Your task to perform on an android device: install app "Paramount+ | Peak Streaming" Image 0: 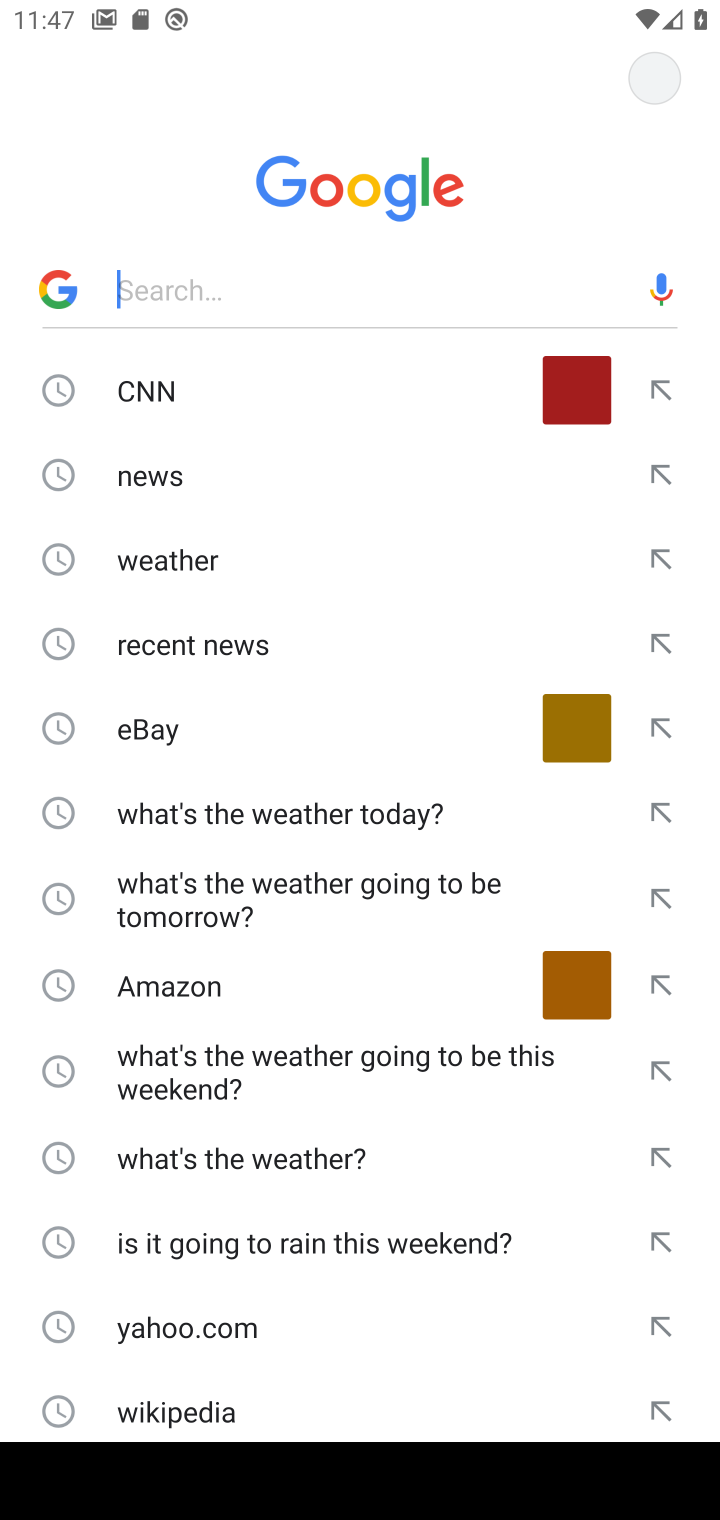
Step 0: click (592, 77)
Your task to perform on an android device: install app "Paramount+ | Peak Streaming" Image 1: 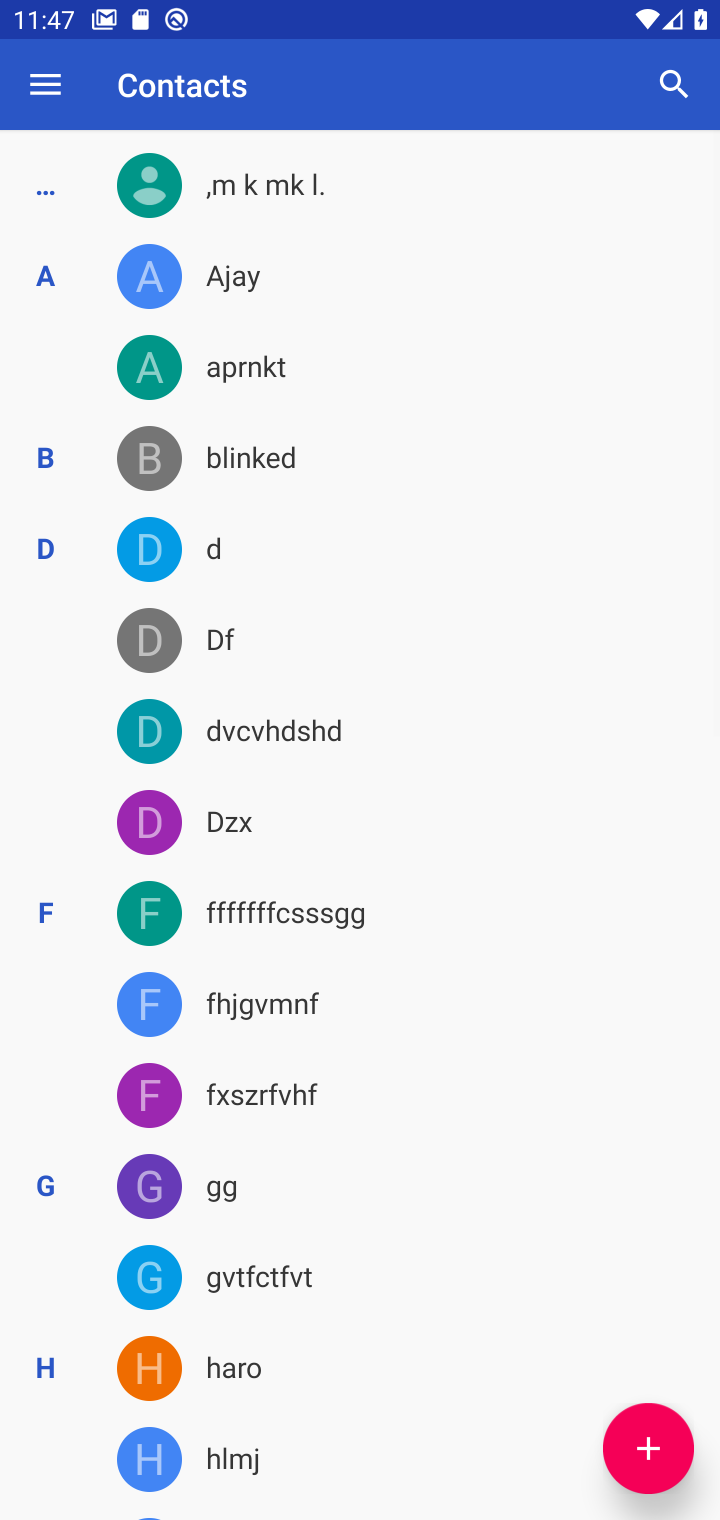
Step 1: press back button
Your task to perform on an android device: install app "Paramount+ | Peak Streaming" Image 2: 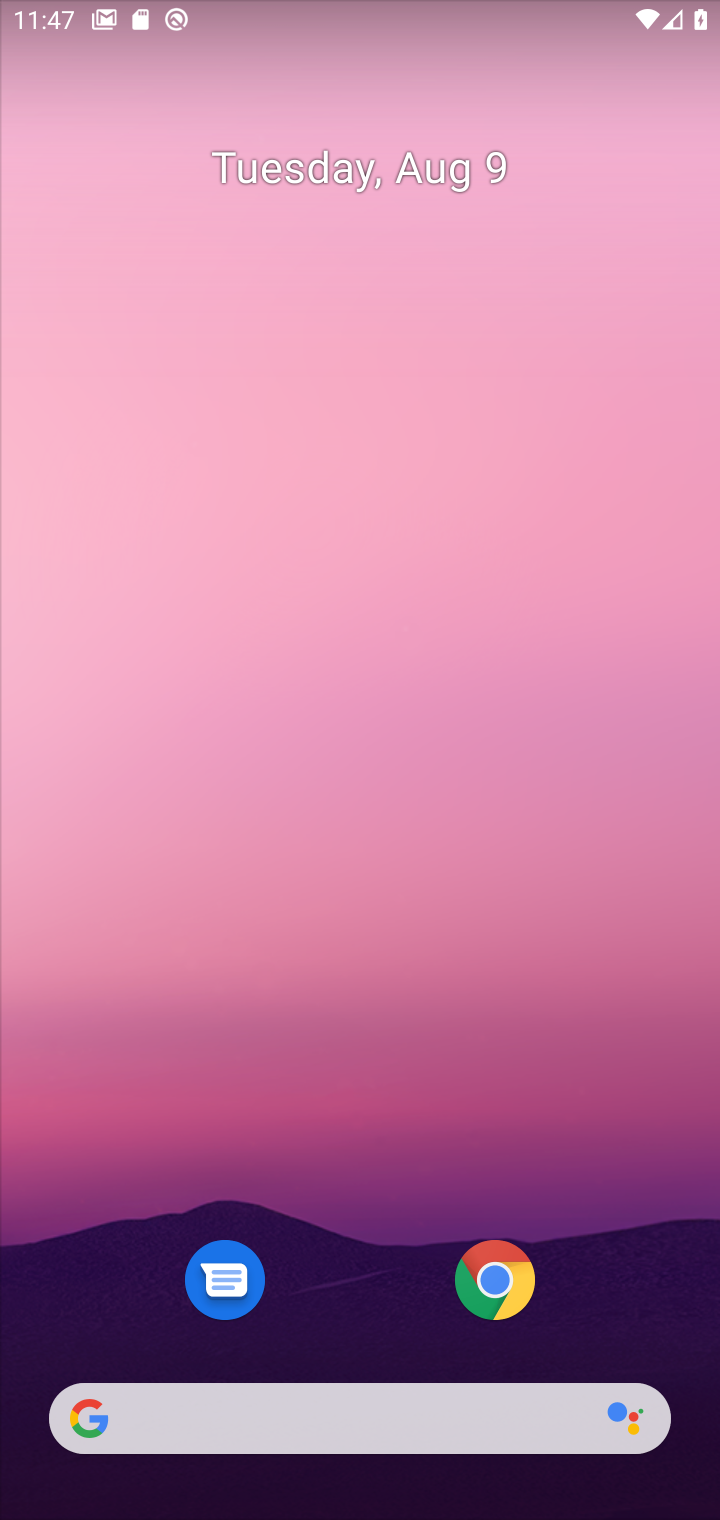
Step 2: drag from (350, 1300) to (626, 237)
Your task to perform on an android device: install app "Paramount+ | Peak Streaming" Image 3: 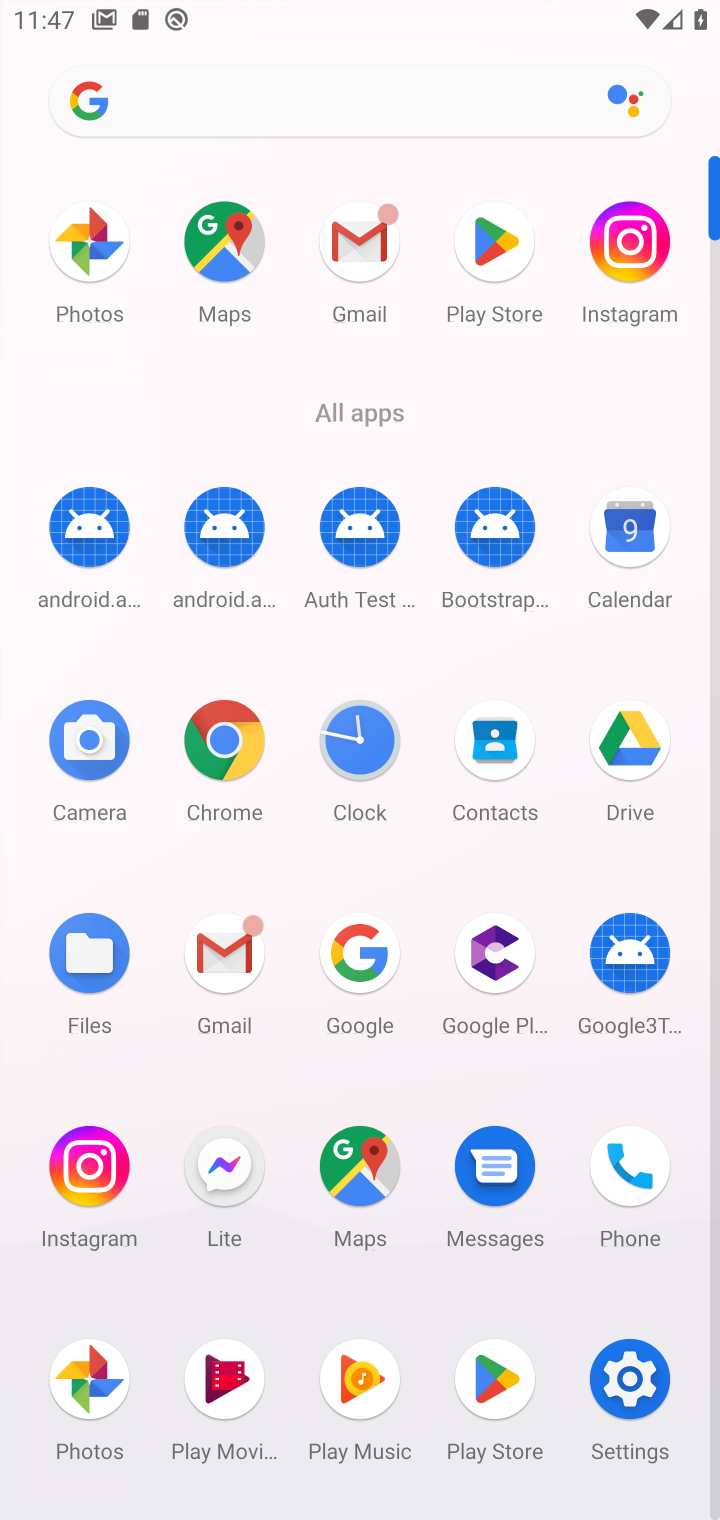
Step 3: click (501, 230)
Your task to perform on an android device: install app "Paramount+ | Peak Streaming" Image 4: 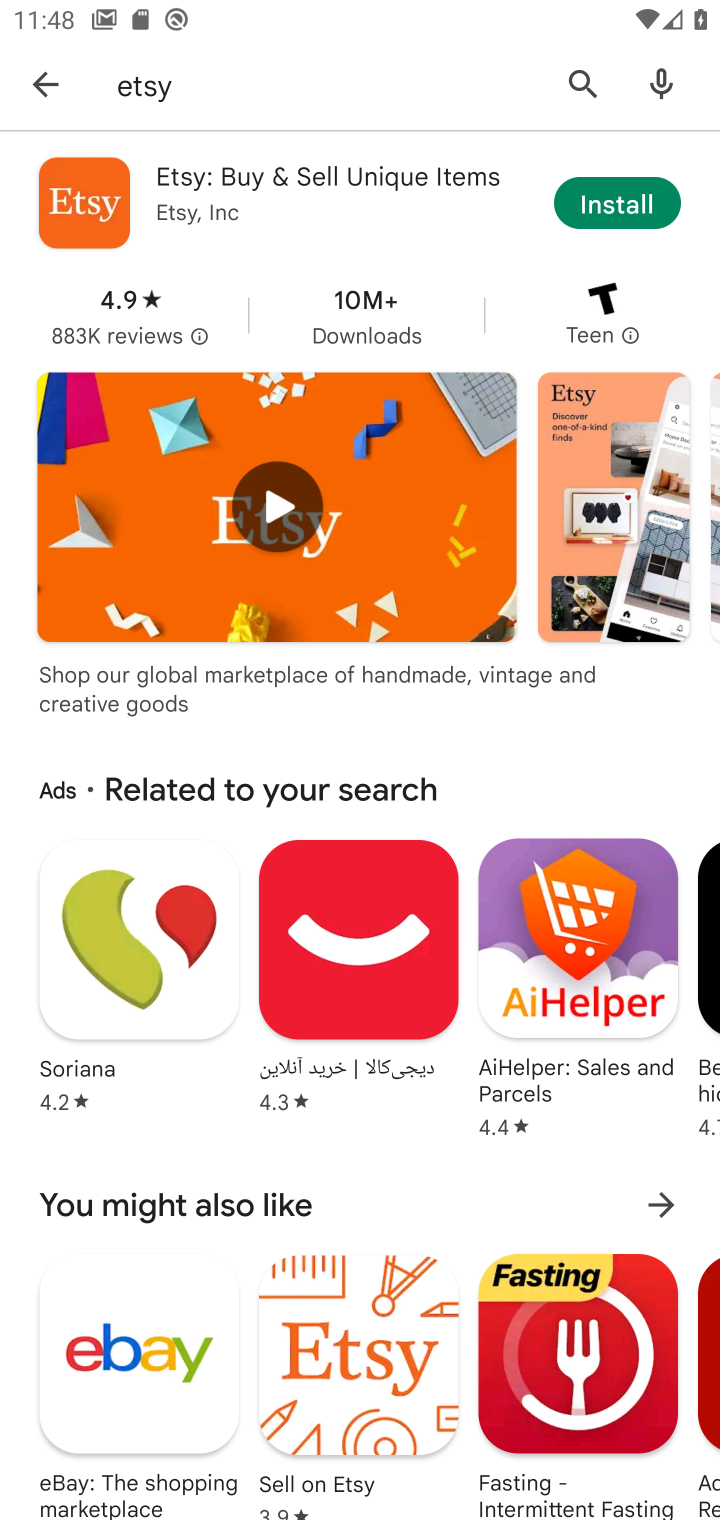
Step 4: click (577, 70)
Your task to perform on an android device: install app "Paramount+ | Peak Streaming" Image 5: 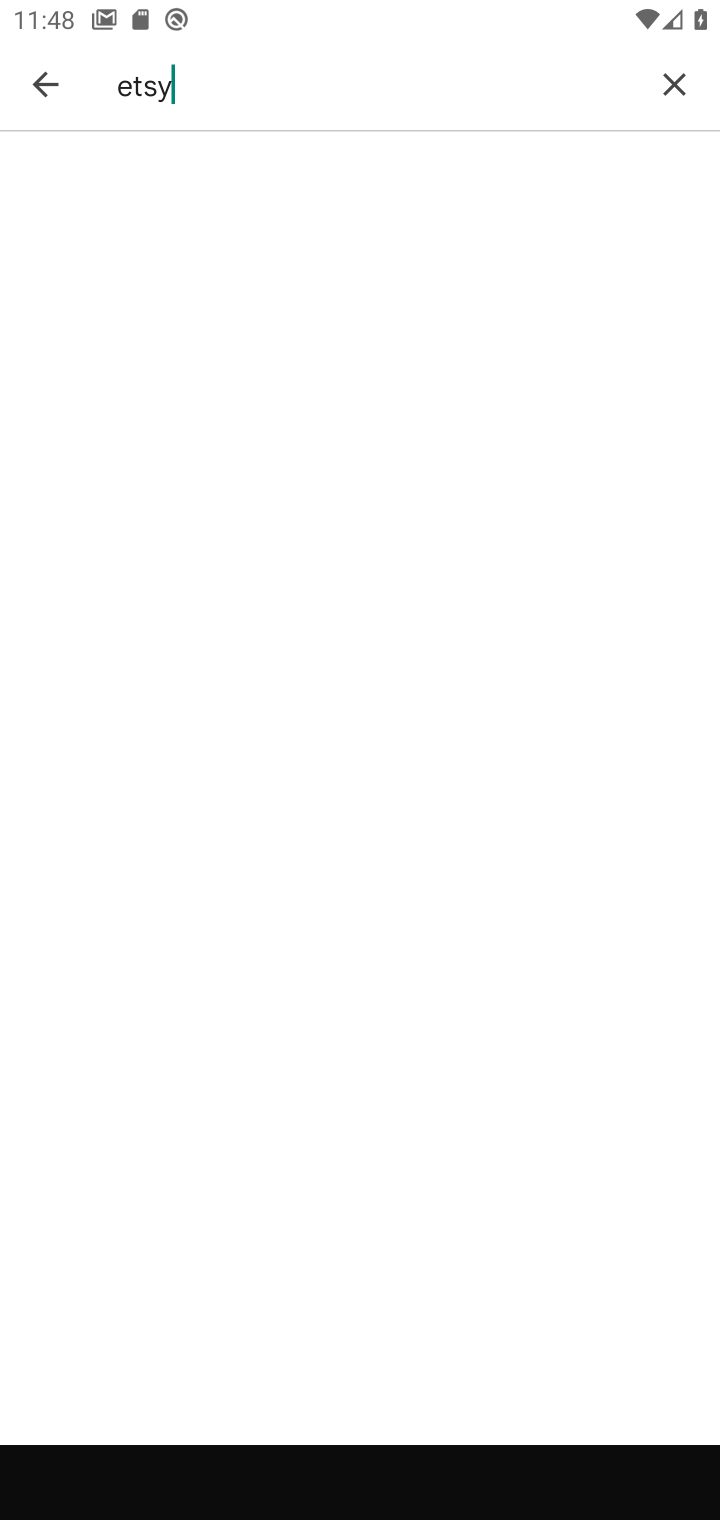
Step 5: click (675, 74)
Your task to perform on an android device: install app "Paramount+ | Peak Streaming" Image 6: 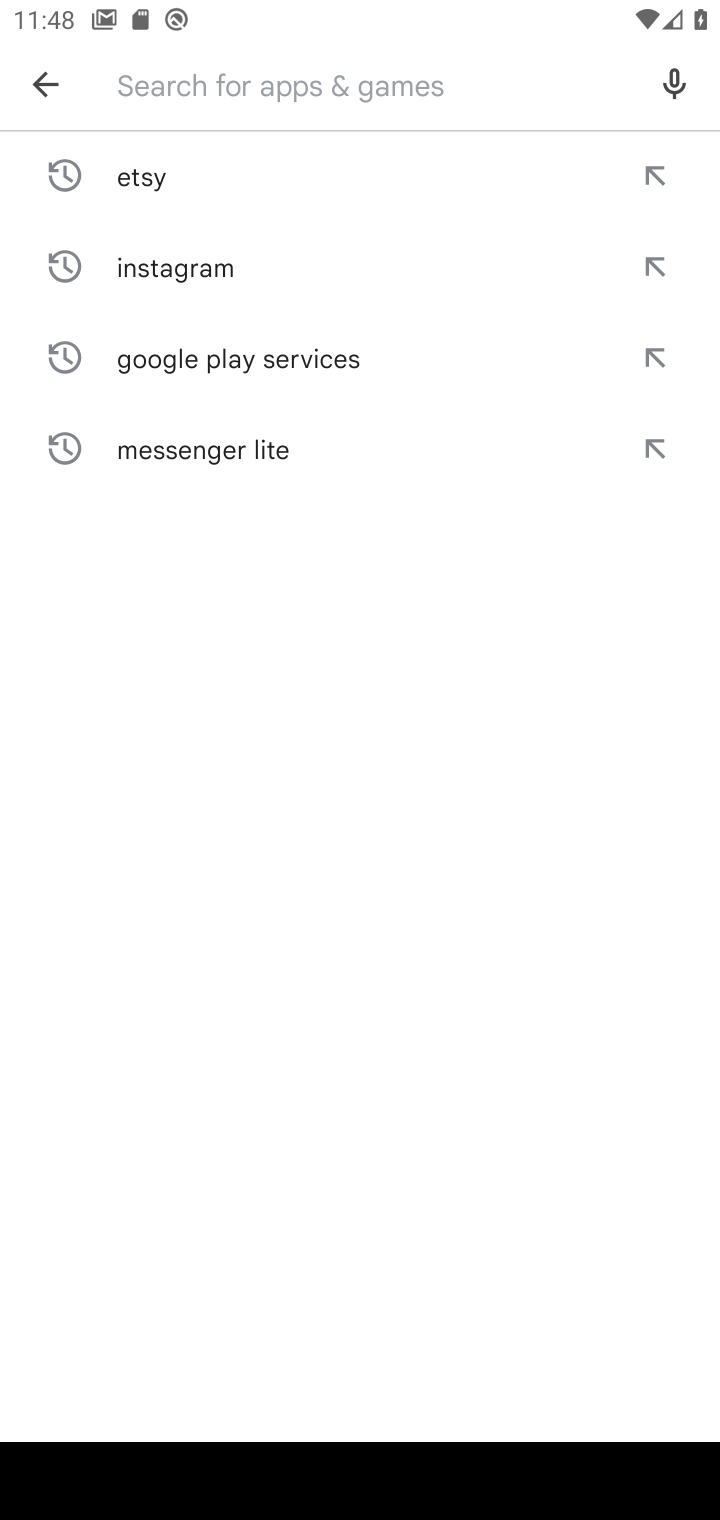
Step 6: type "paramount"
Your task to perform on an android device: install app "Paramount+ | Peak Streaming" Image 7: 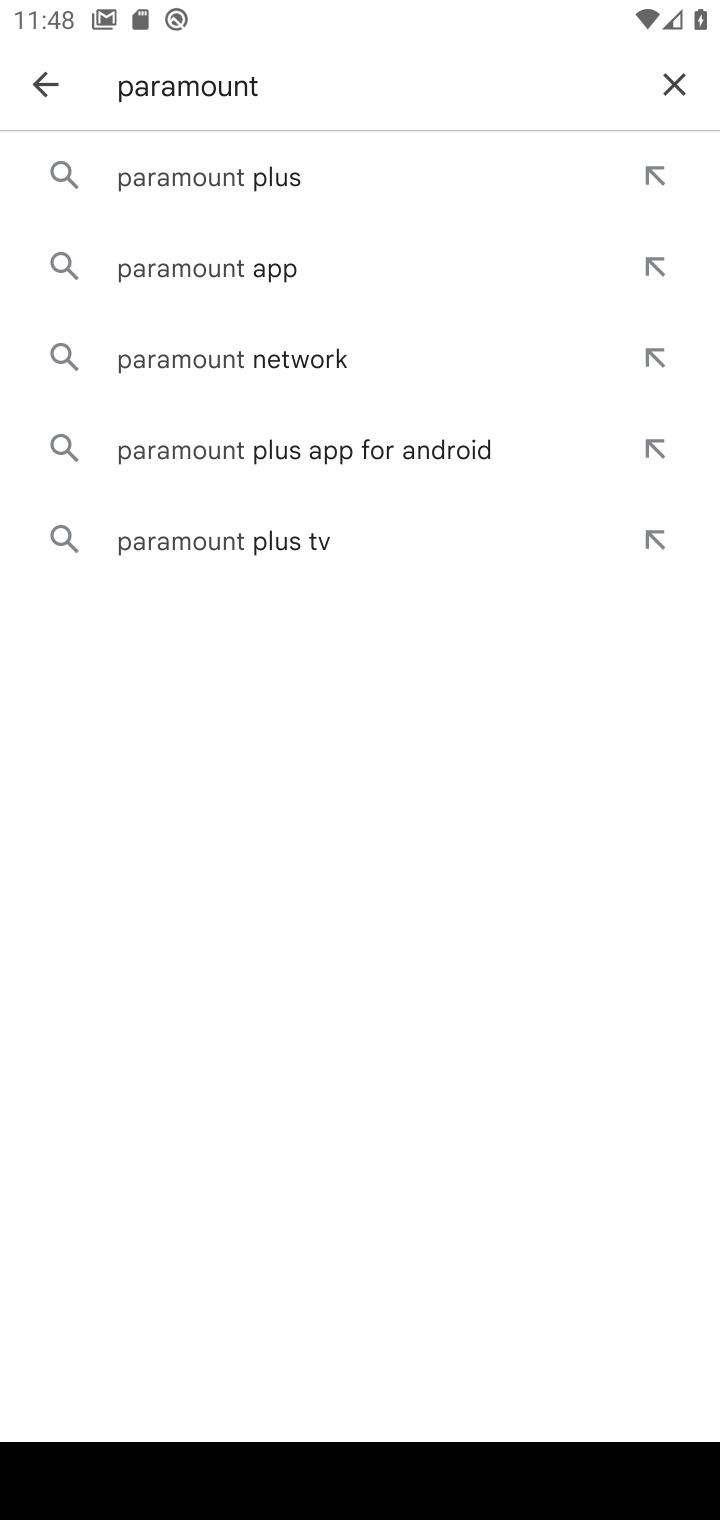
Step 7: click (207, 177)
Your task to perform on an android device: install app "Paramount+ | Peak Streaming" Image 8: 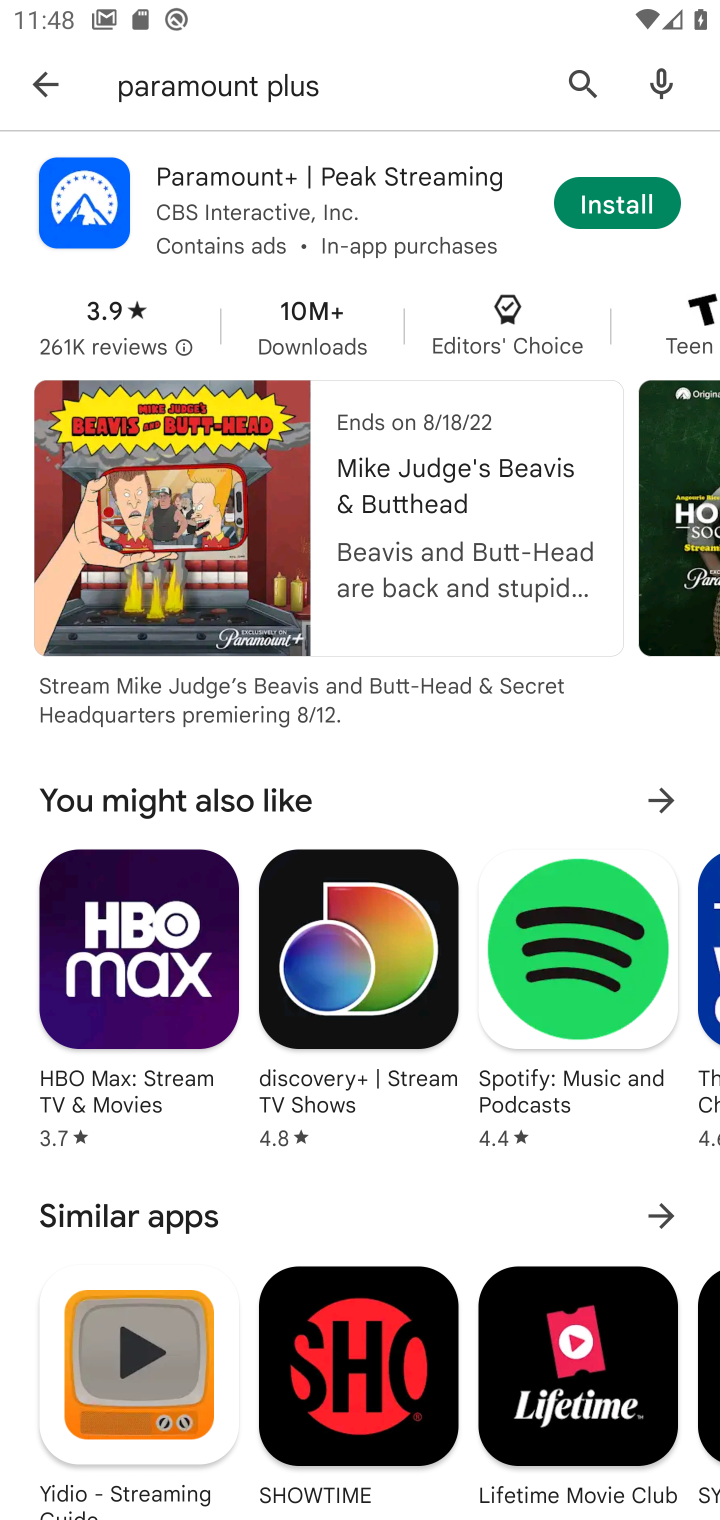
Step 8: click (650, 202)
Your task to perform on an android device: install app "Paramount+ | Peak Streaming" Image 9: 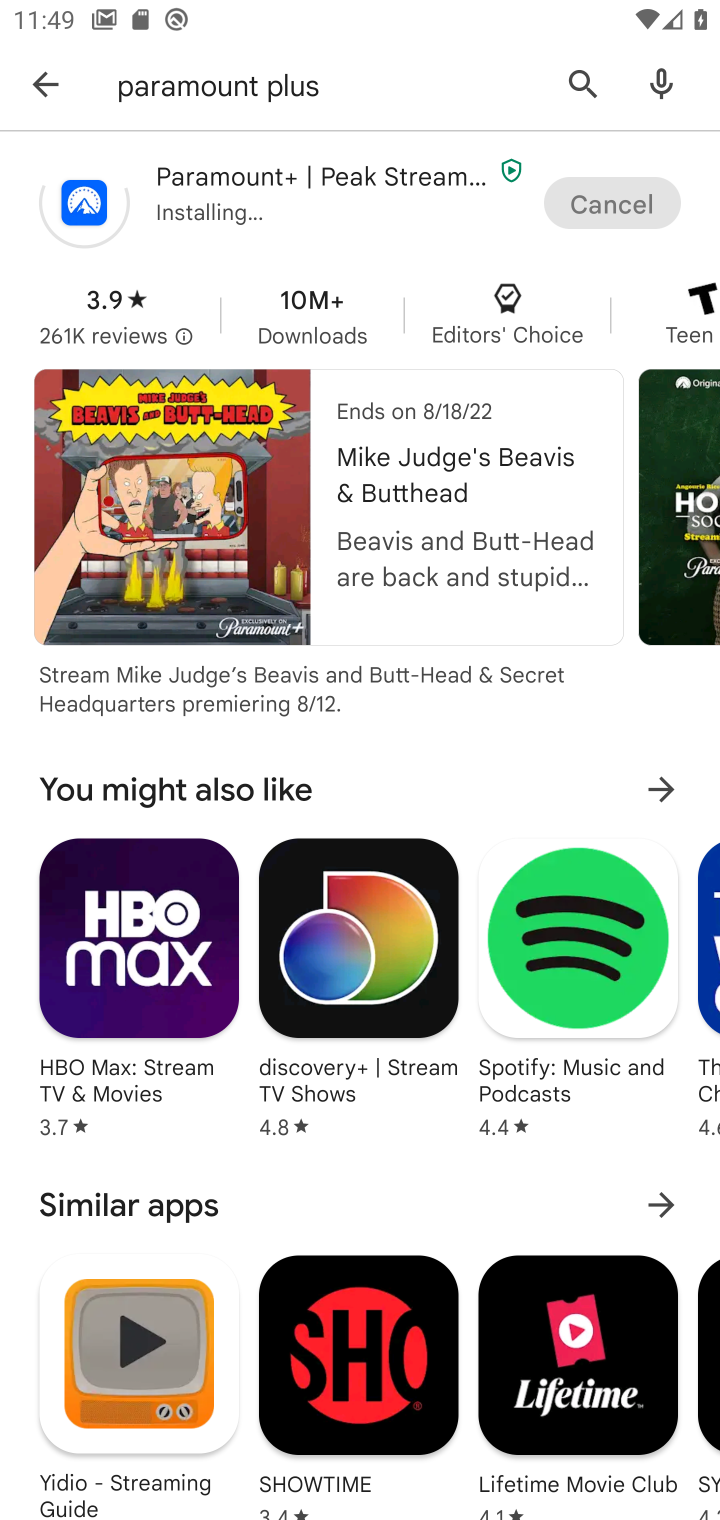
Step 9: press back button
Your task to perform on an android device: install app "Paramount+ | Peak Streaming" Image 10: 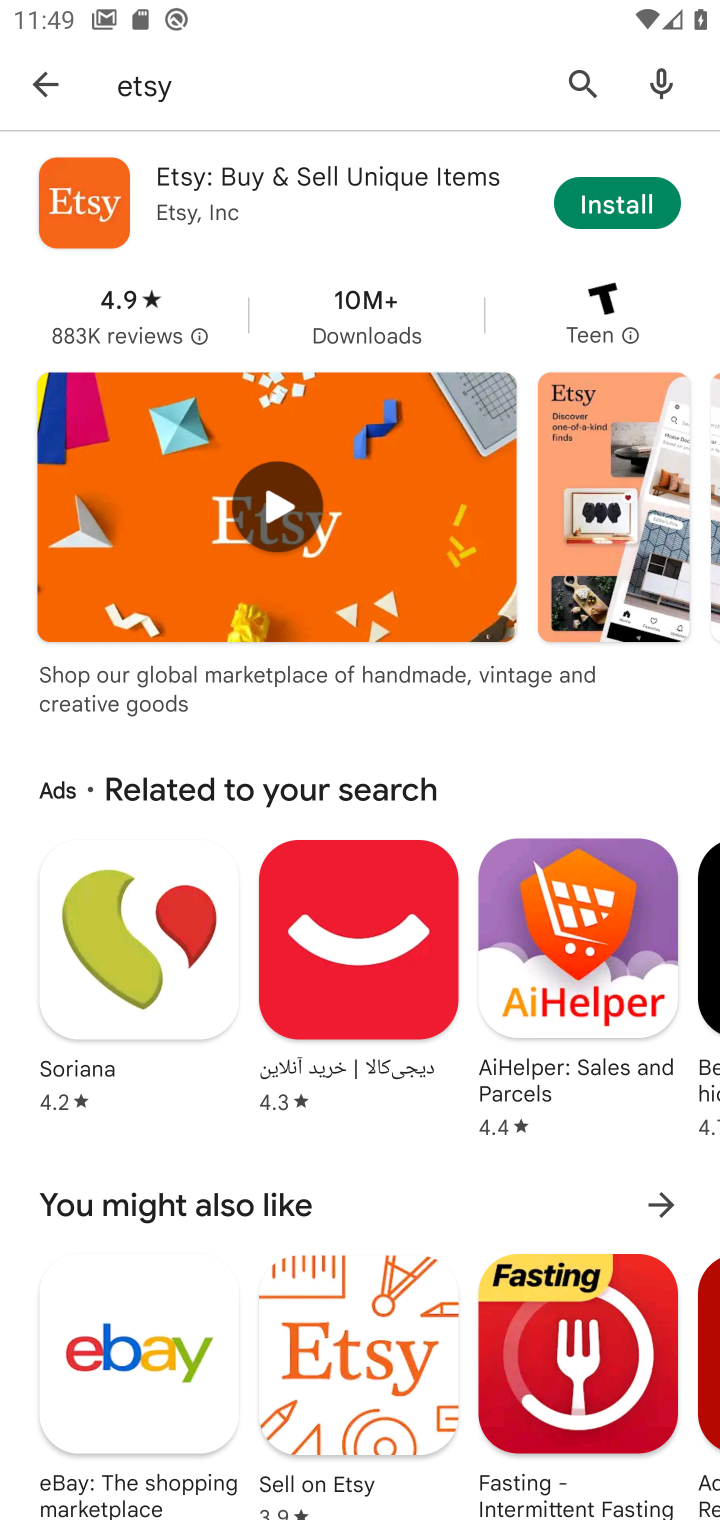
Step 10: click (568, 73)
Your task to perform on an android device: install app "Paramount+ | Peak Streaming" Image 11: 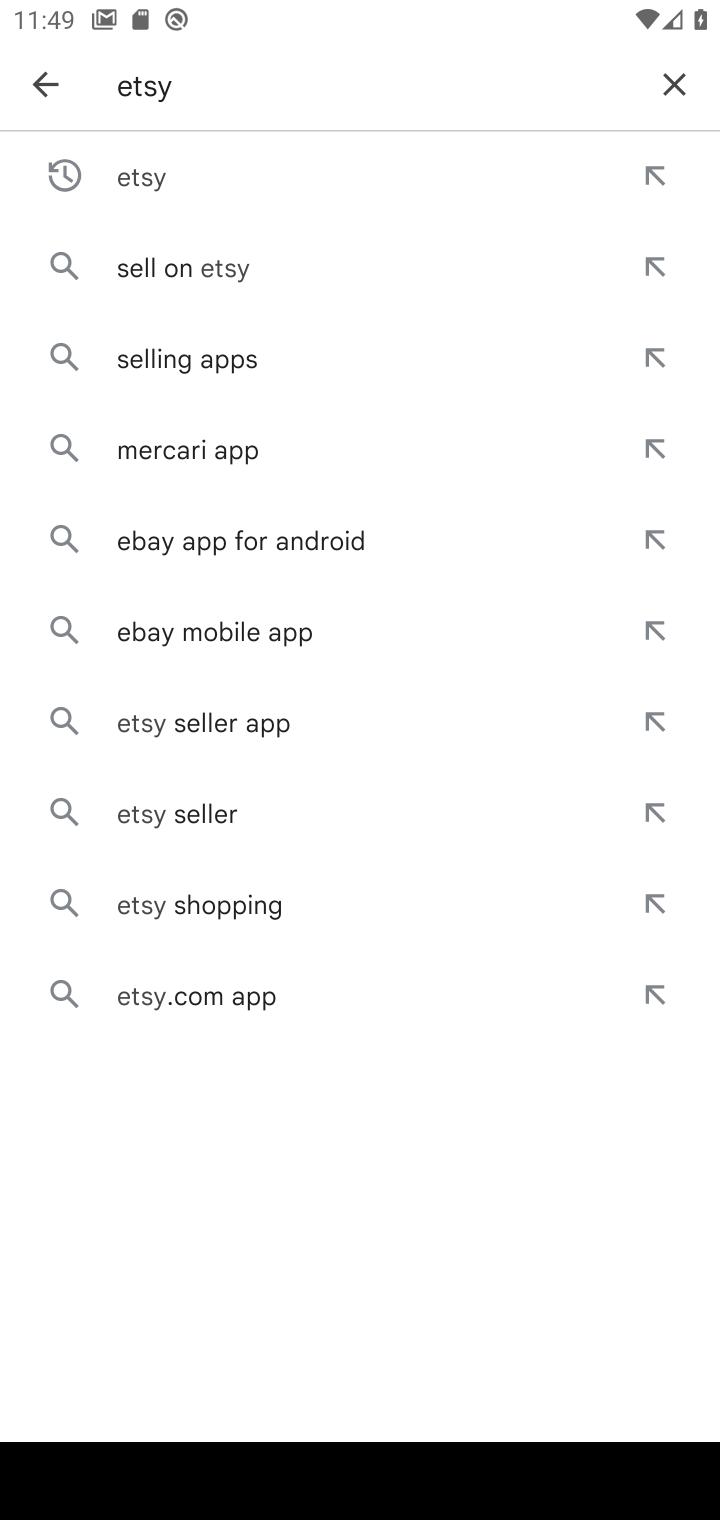
Step 11: click (698, 81)
Your task to perform on an android device: install app "Paramount+ | Peak Streaming" Image 12: 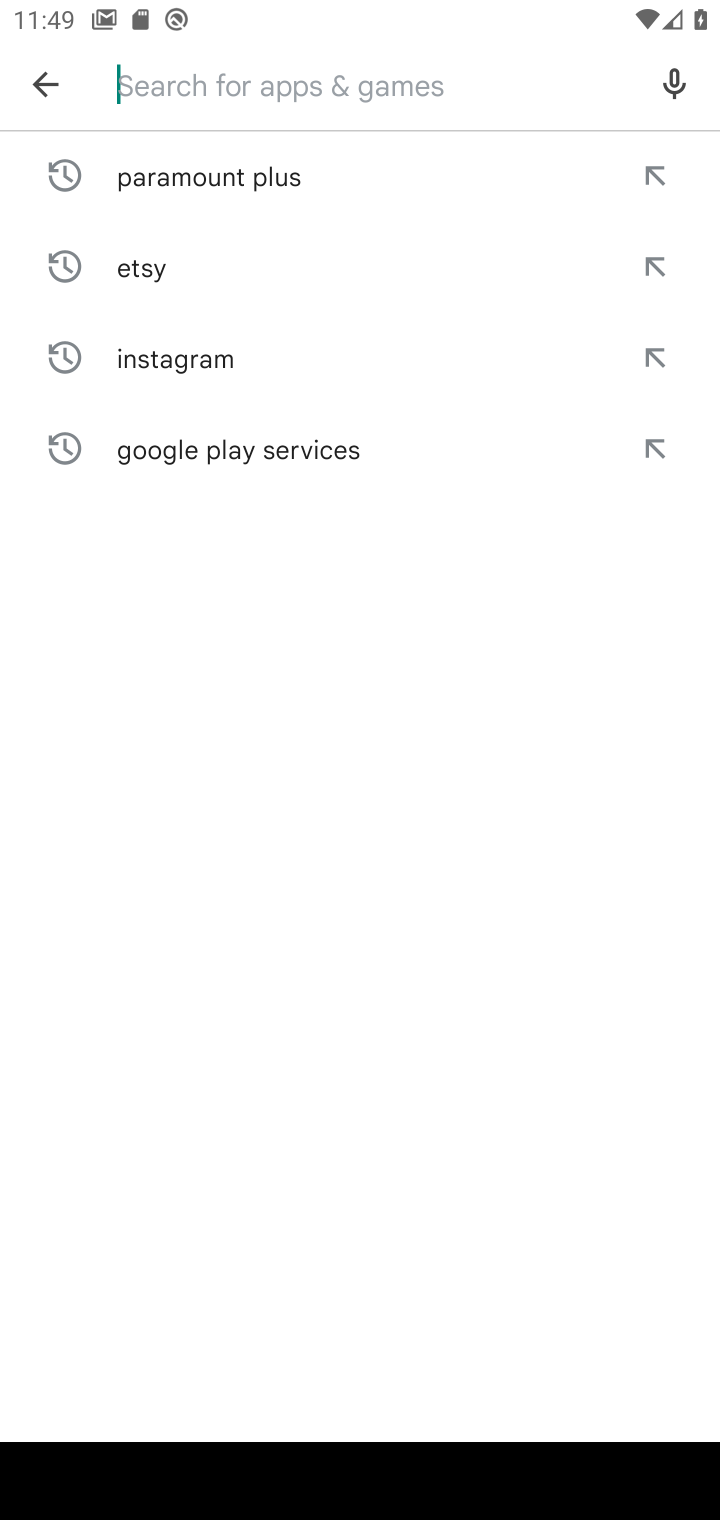
Step 12: click (288, 182)
Your task to perform on an android device: install app "Paramount+ | Peak Streaming" Image 13: 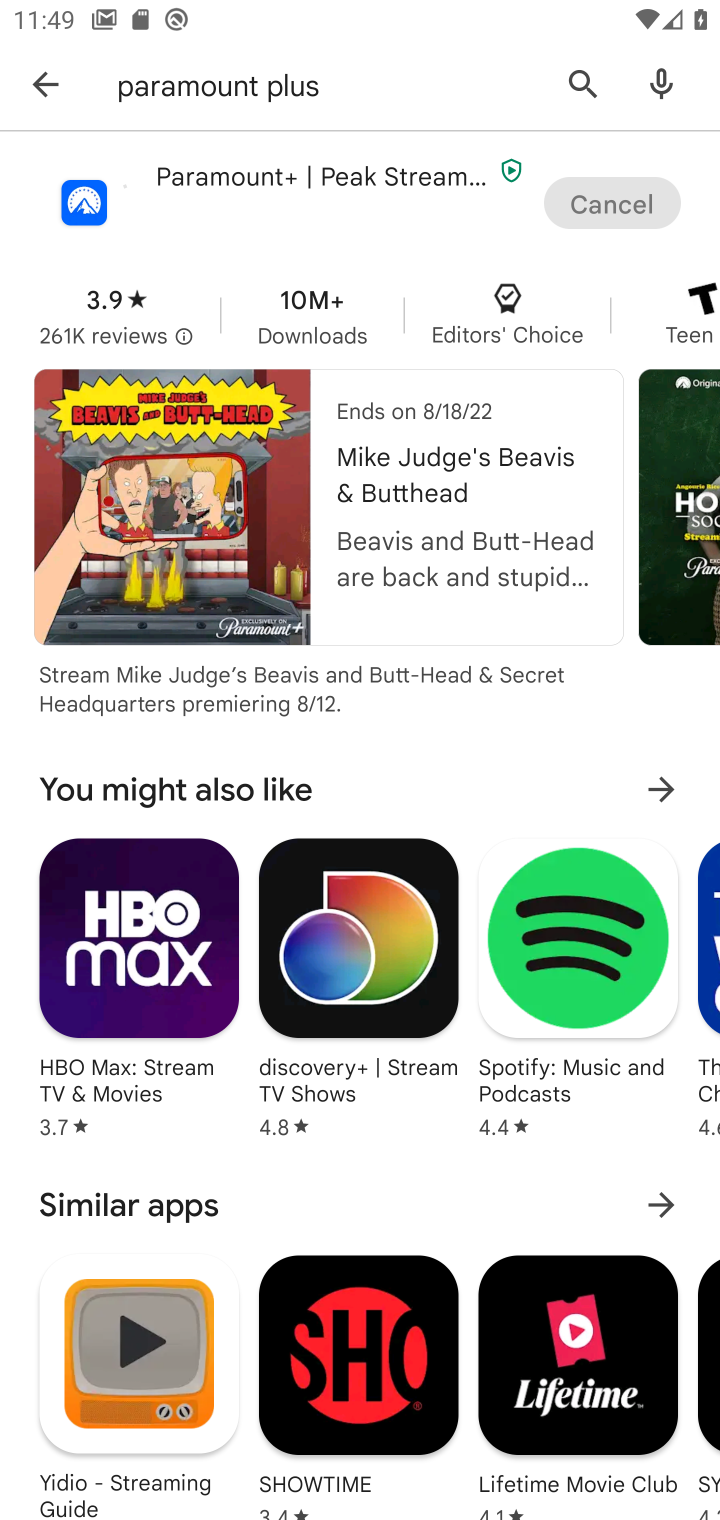
Step 13: click (209, 164)
Your task to perform on an android device: install app "Paramount+ | Peak Streaming" Image 14: 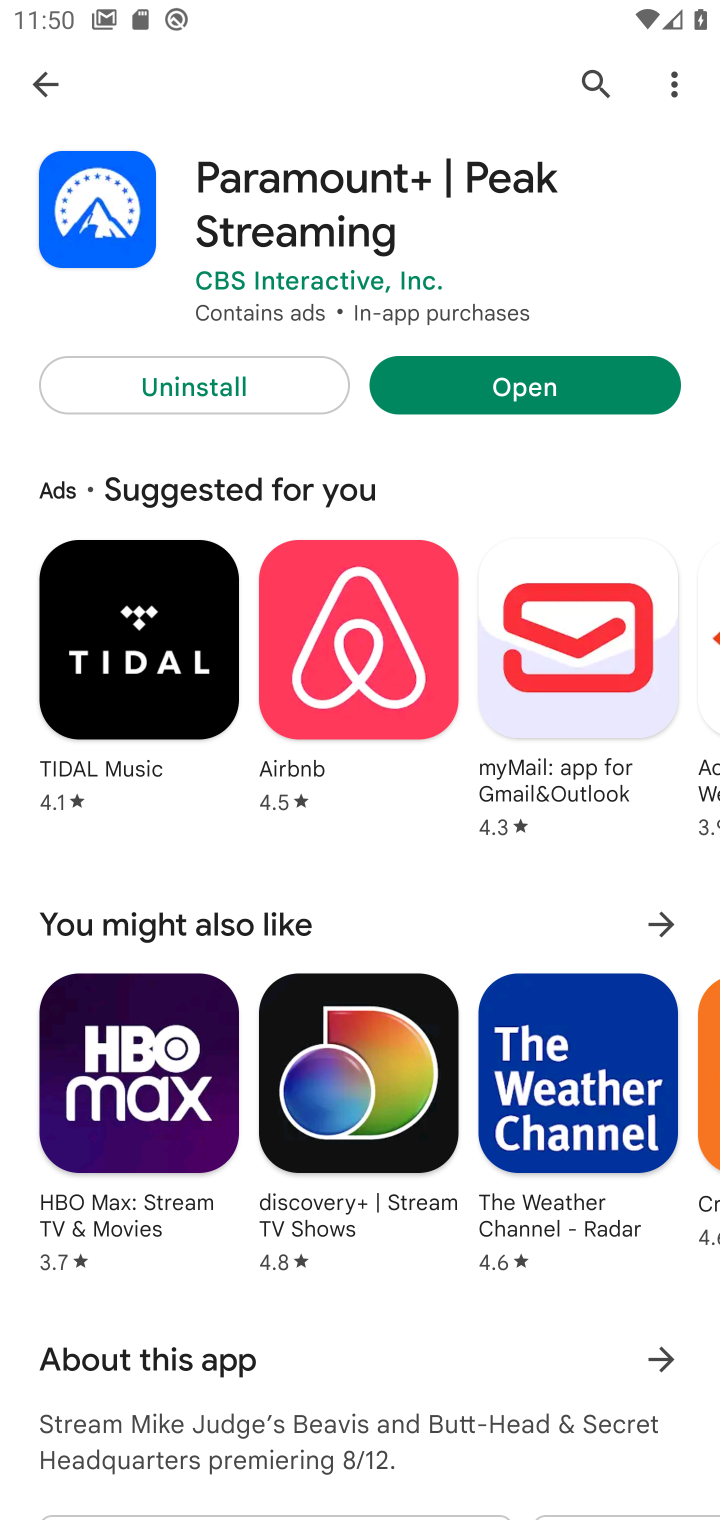
Step 14: task complete